Your task to perform on an android device: turn off location history Image 0: 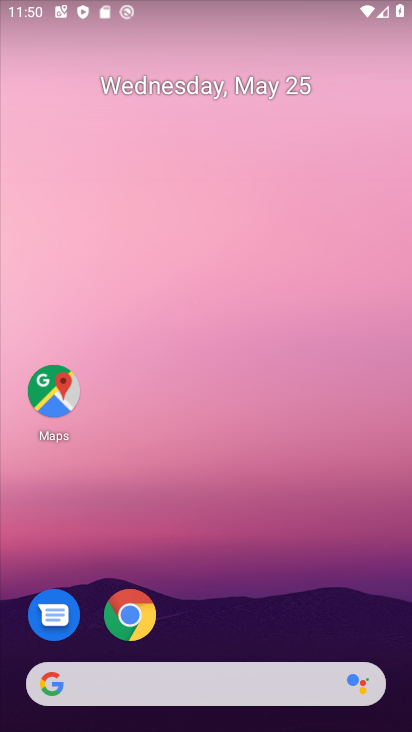
Step 0: click (53, 379)
Your task to perform on an android device: turn off location history Image 1: 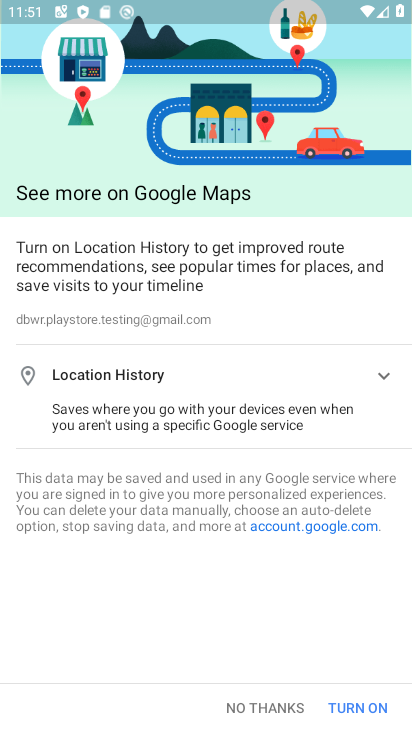
Step 1: click (272, 712)
Your task to perform on an android device: turn off location history Image 2: 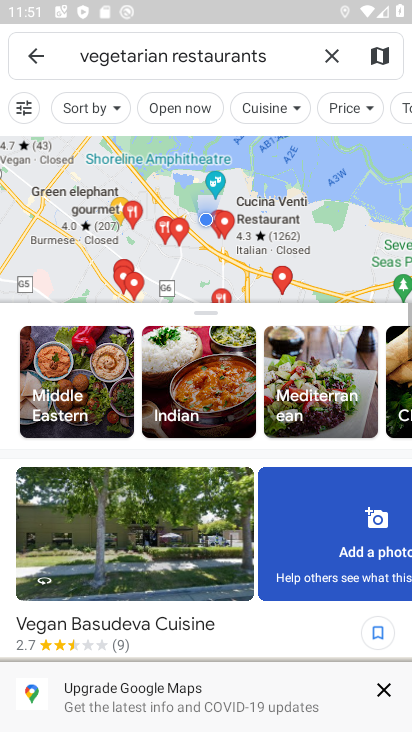
Step 2: click (30, 49)
Your task to perform on an android device: turn off location history Image 3: 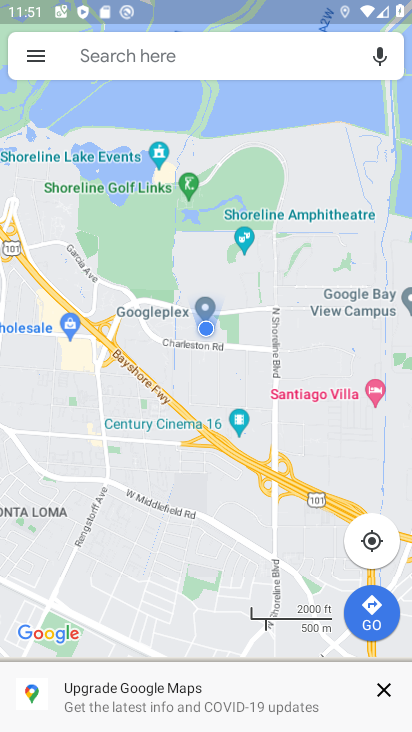
Step 3: click (30, 49)
Your task to perform on an android device: turn off location history Image 4: 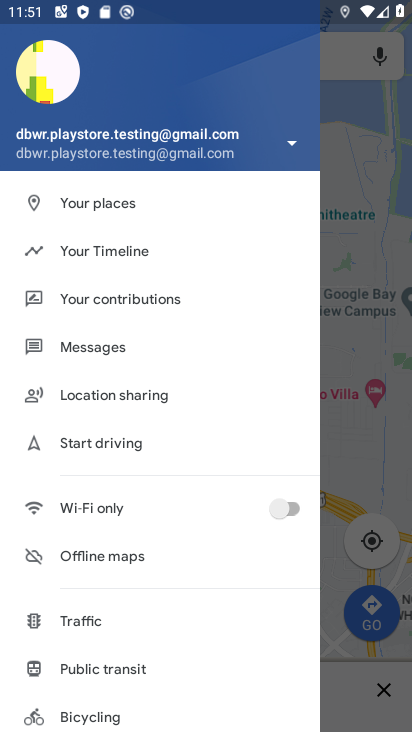
Step 4: click (105, 261)
Your task to perform on an android device: turn off location history Image 5: 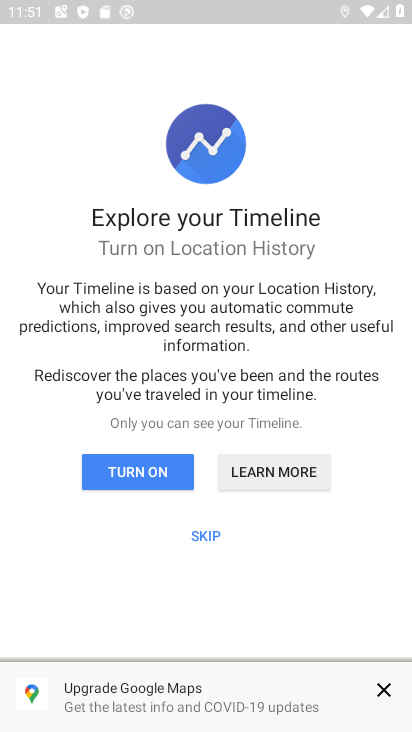
Step 5: click (193, 539)
Your task to perform on an android device: turn off location history Image 6: 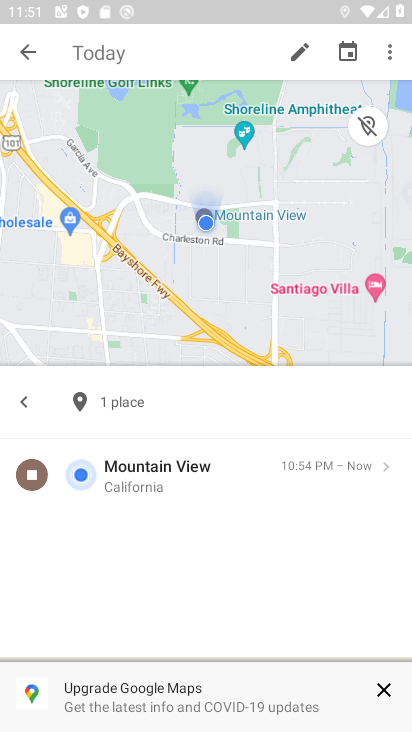
Step 6: click (387, 52)
Your task to perform on an android device: turn off location history Image 7: 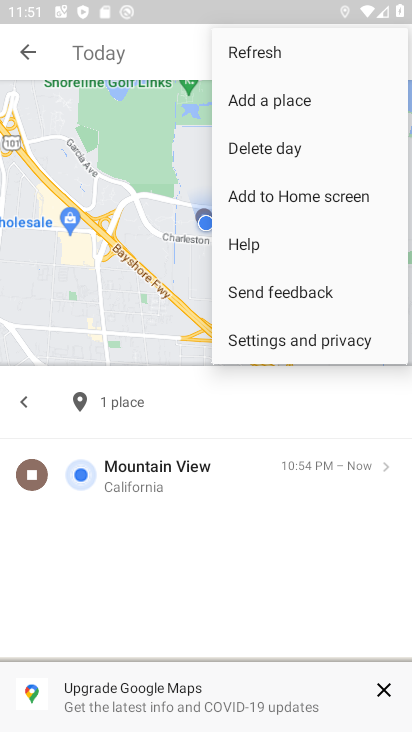
Step 7: click (343, 336)
Your task to perform on an android device: turn off location history Image 8: 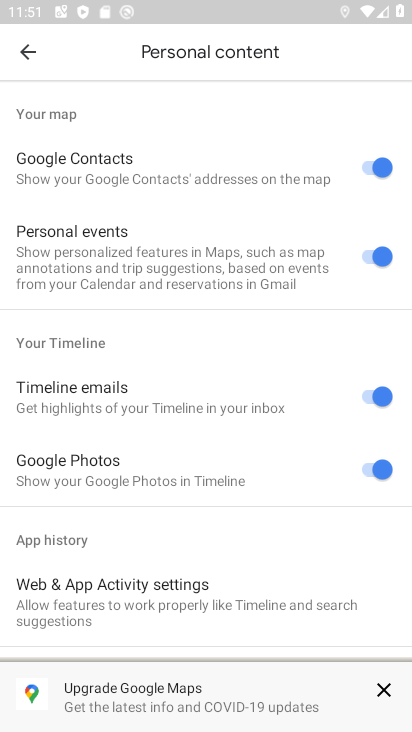
Step 8: drag from (177, 617) to (141, 204)
Your task to perform on an android device: turn off location history Image 9: 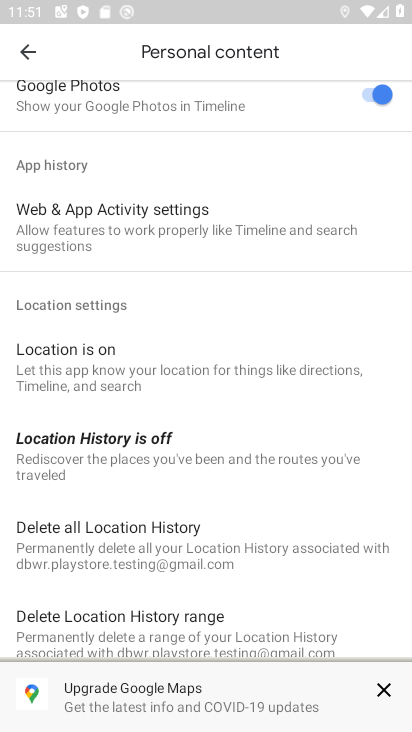
Step 9: click (150, 449)
Your task to perform on an android device: turn off location history Image 10: 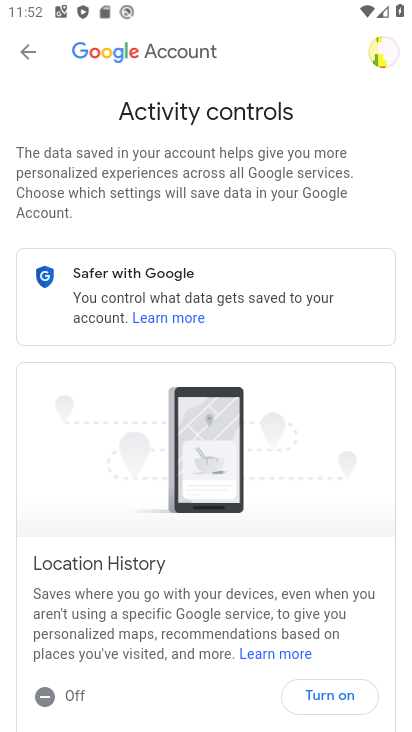
Step 10: task complete